Your task to perform on an android device: toggle sleep mode Image 0: 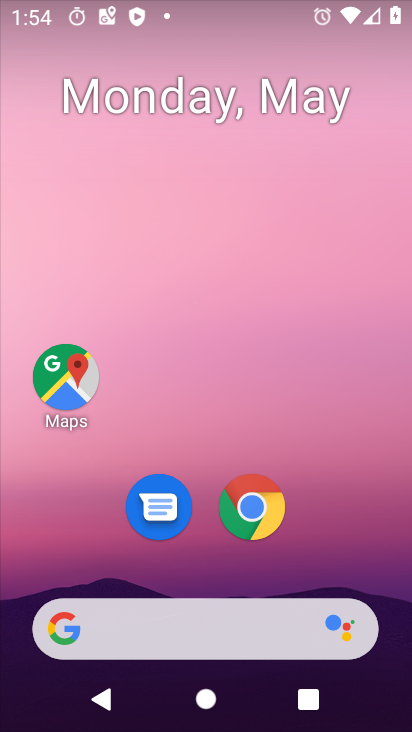
Step 0: drag from (228, 712) to (223, 108)
Your task to perform on an android device: toggle sleep mode Image 1: 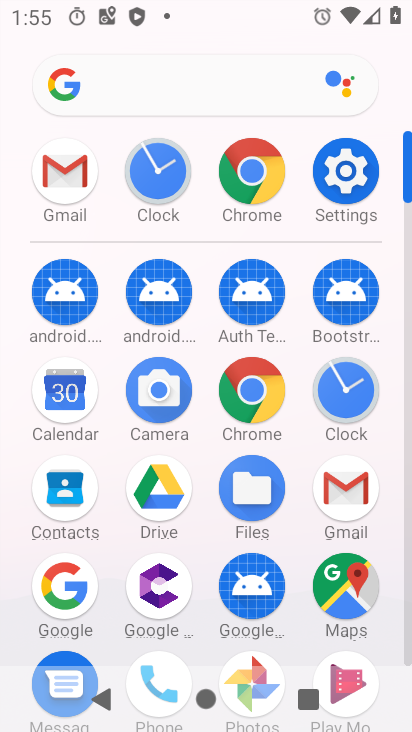
Step 1: click (346, 176)
Your task to perform on an android device: toggle sleep mode Image 2: 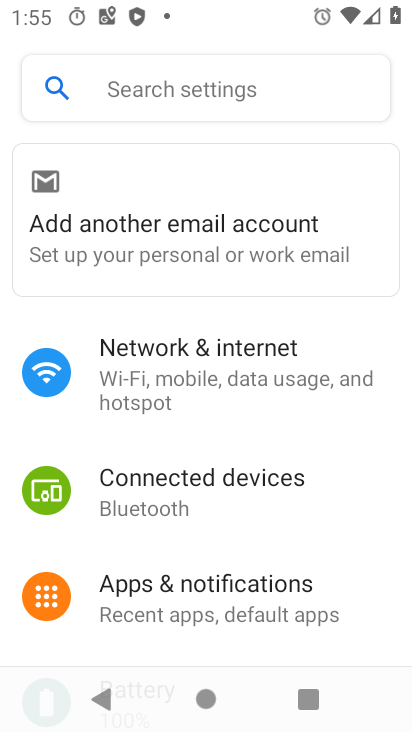
Step 2: drag from (224, 632) to (224, 351)
Your task to perform on an android device: toggle sleep mode Image 3: 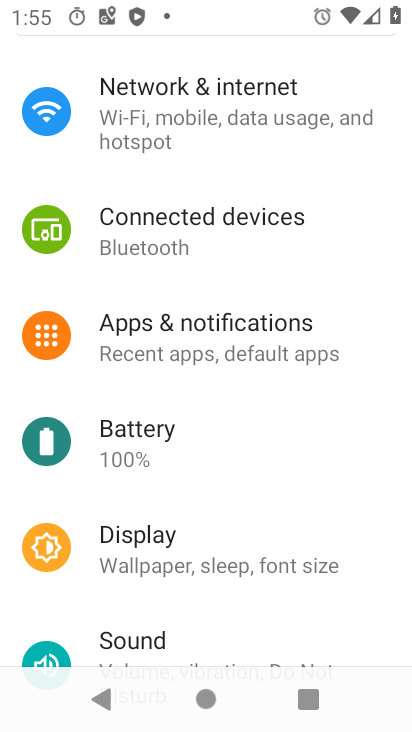
Step 3: drag from (217, 645) to (211, 352)
Your task to perform on an android device: toggle sleep mode Image 4: 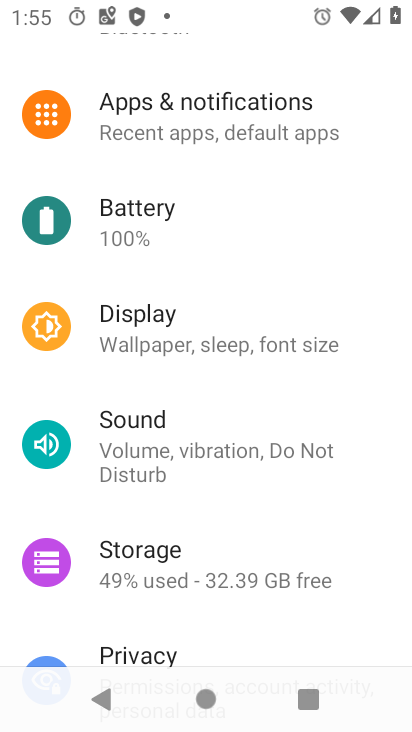
Step 4: drag from (231, 630) to (232, 226)
Your task to perform on an android device: toggle sleep mode Image 5: 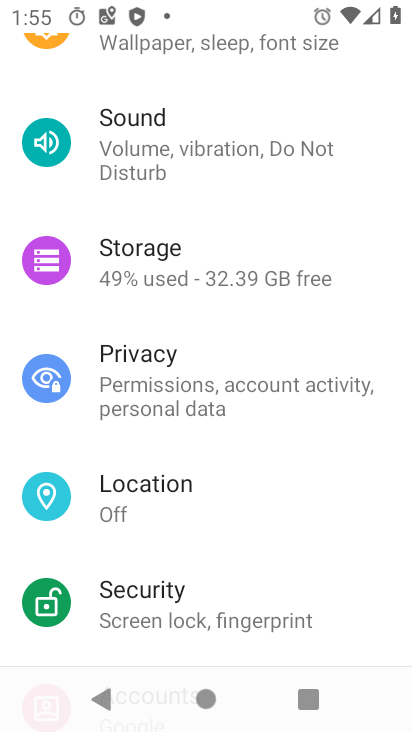
Step 5: drag from (214, 637) to (214, 164)
Your task to perform on an android device: toggle sleep mode Image 6: 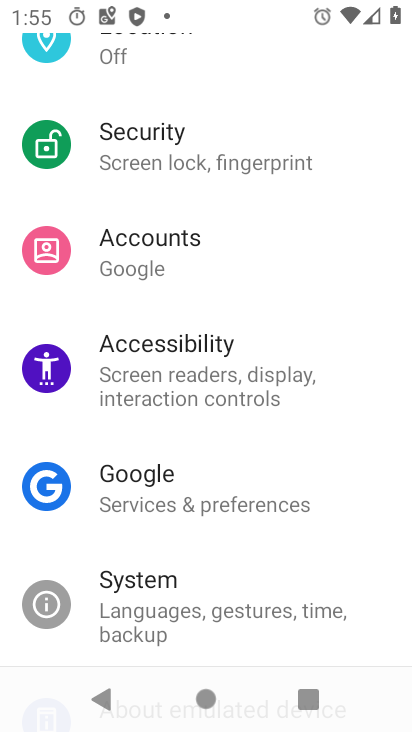
Step 6: drag from (239, 642) to (244, 176)
Your task to perform on an android device: toggle sleep mode Image 7: 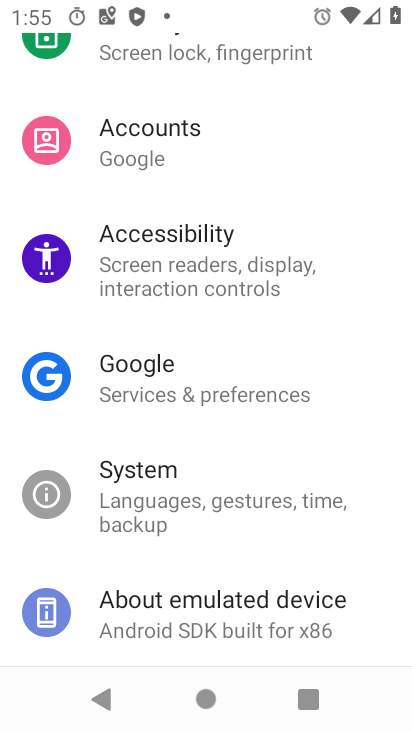
Step 7: drag from (274, 114) to (273, 480)
Your task to perform on an android device: toggle sleep mode Image 8: 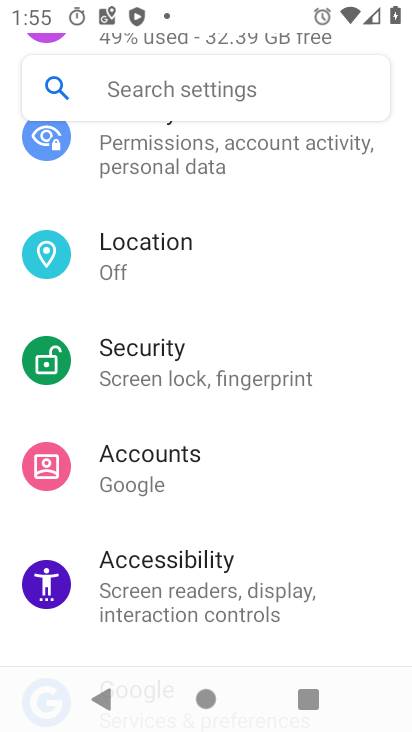
Step 8: drag from (267, 140) to (267, 527)
Your task to perform on an android device: toggle sleep mode Image 9: 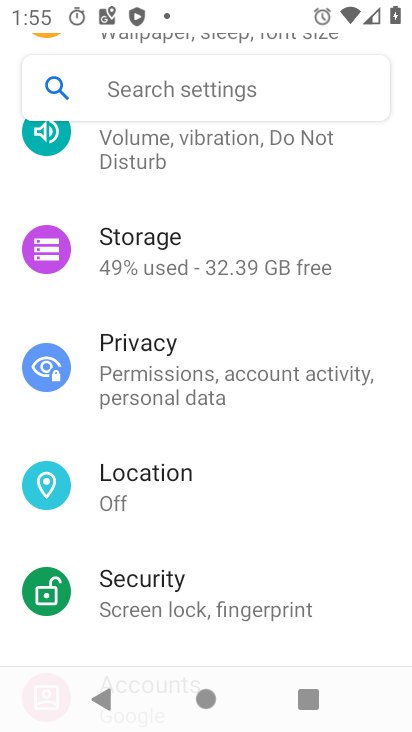
Step 9: drag from (260, 149) to (257, 553)
Your task to perform on an android device: toggle sleep mode Image 10: 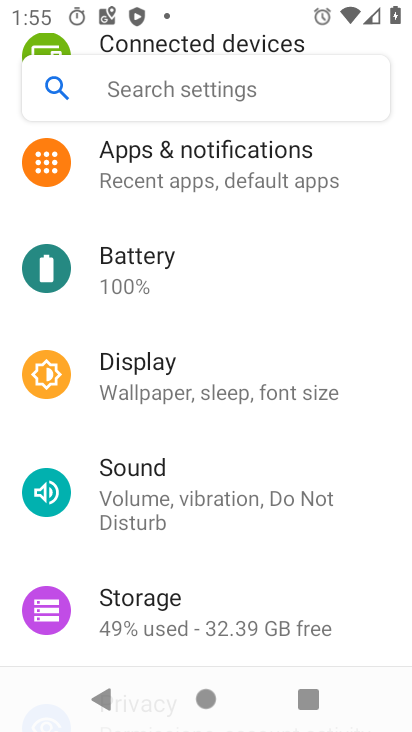
Step 10: click (208, 402)
Your task to perform on an android device: toggle sleep mode Image 11: 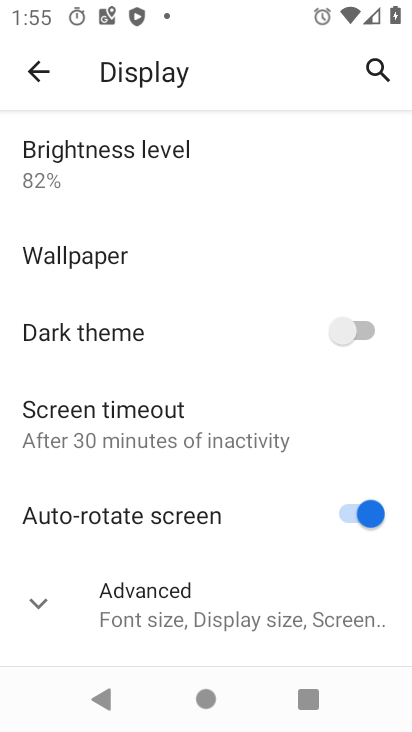
Step 11: task complete